Your task to perform on an android device: open app "DoorDash - Dasher" Image 0: 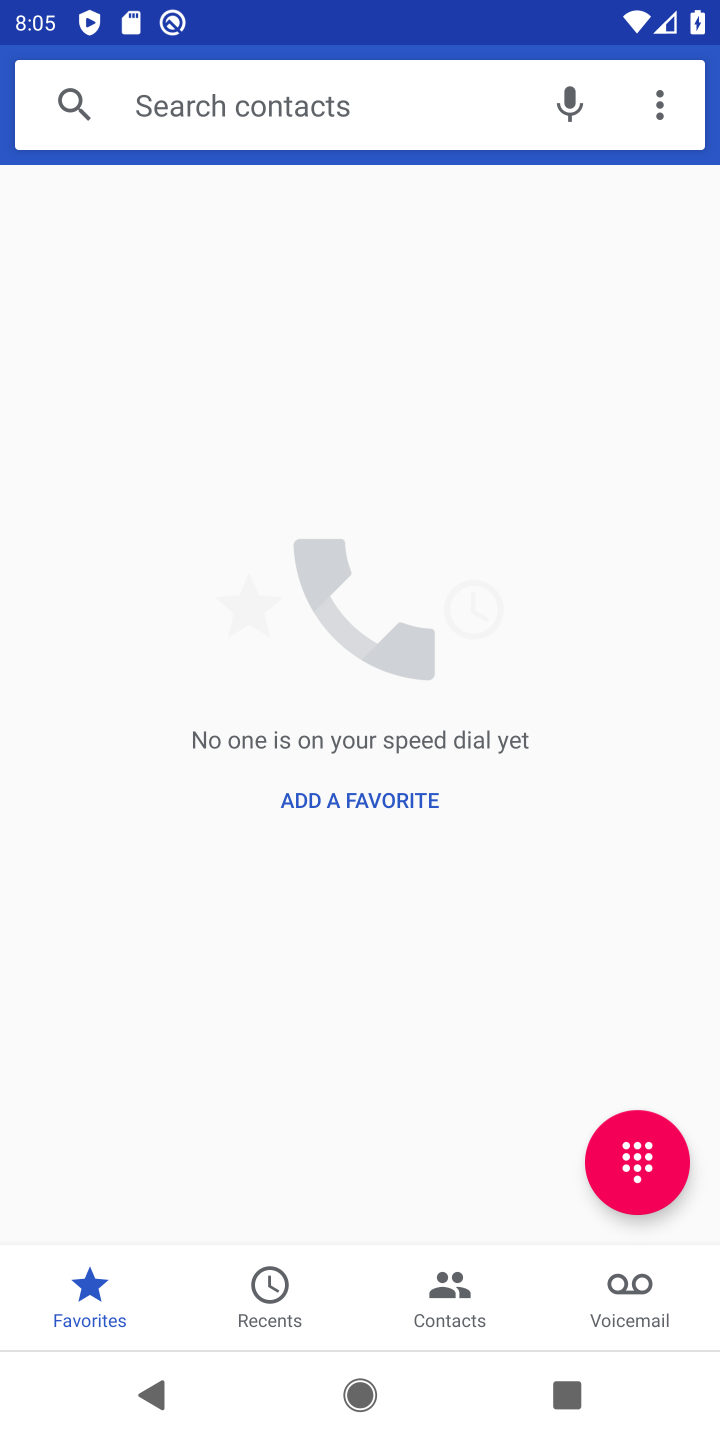
Step 0: press home button
Your task to perform on an android device: open app "DoorDash - Dasher" Image 1: 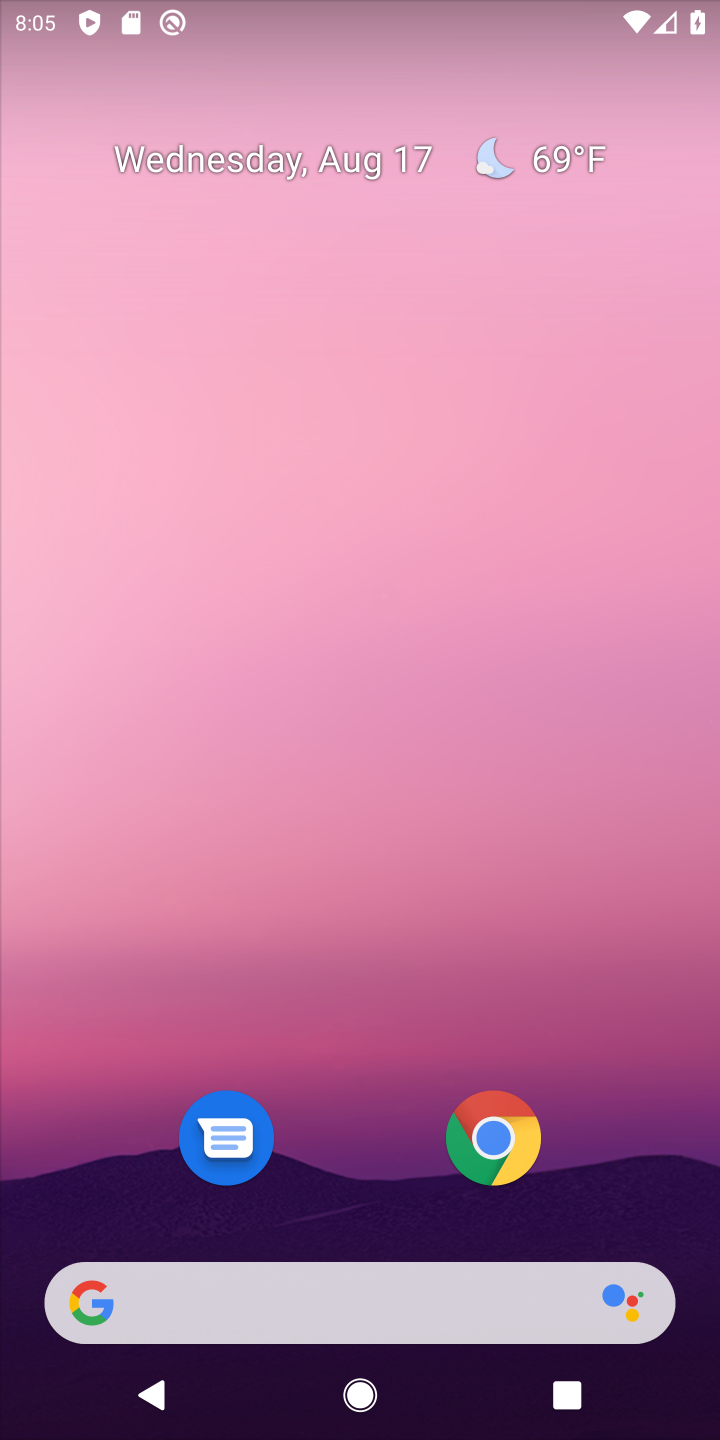
Step 1: drag from (312, 1211) to (238, 394)
Your task to perform on an android device: open app "DoorDash - Dasher" Image 2: 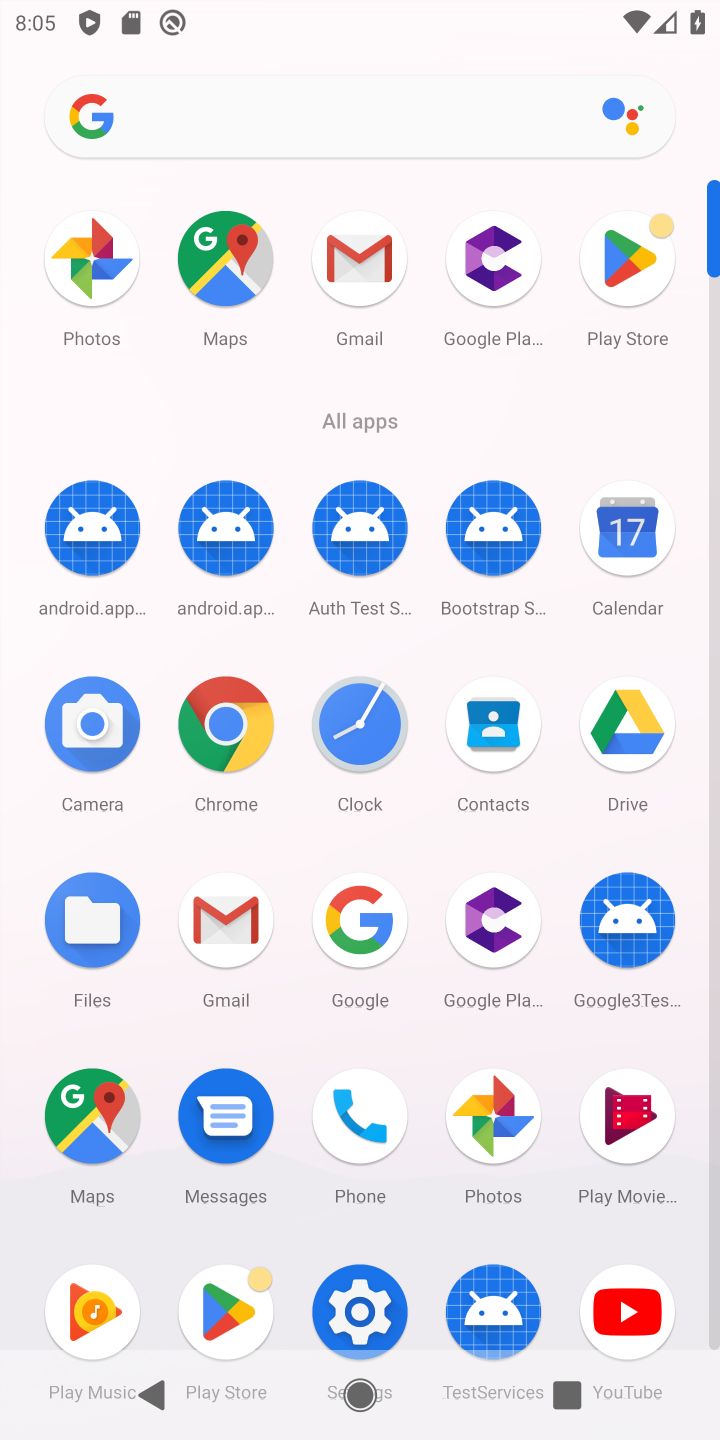
Step 2: click (209, 1305)
Your task to perform on an android device: open app "DoorDash - Dasher" Image 3: 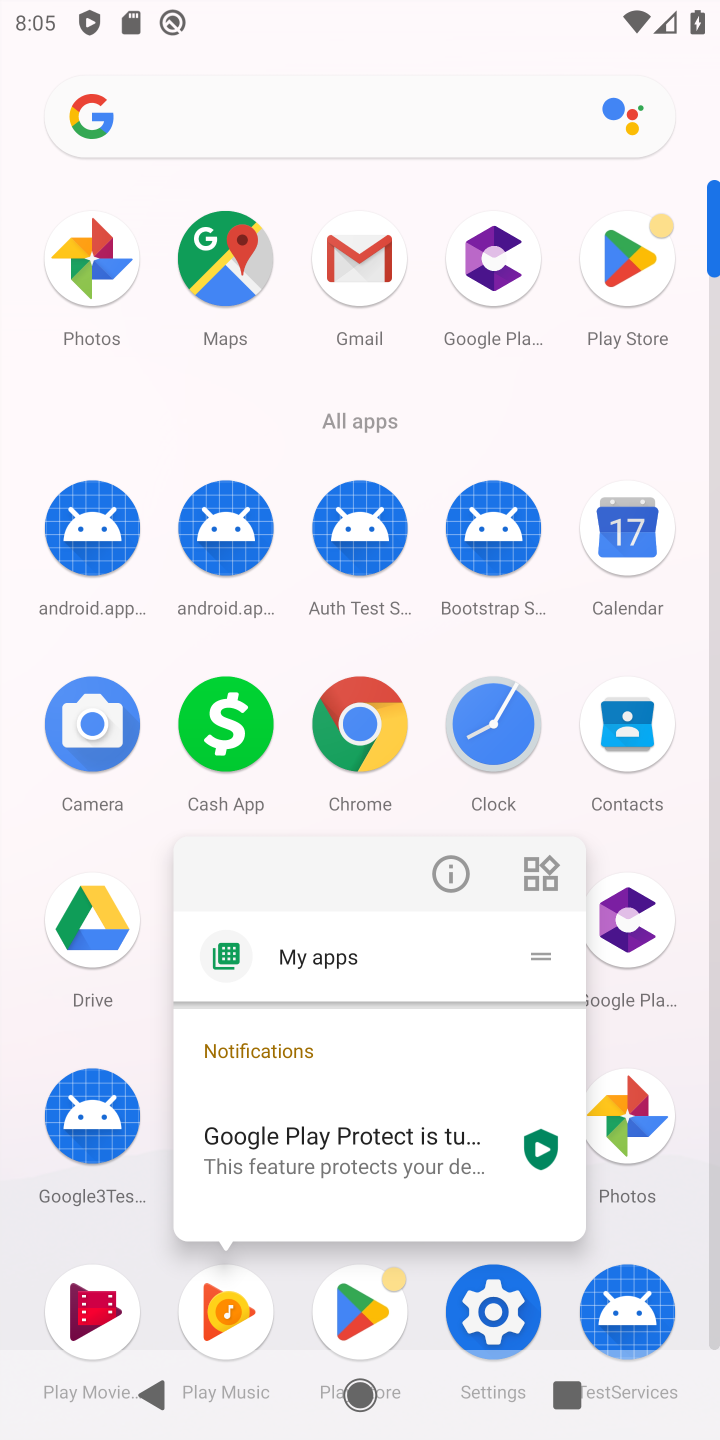
Step 3: click (351, 1295)
Your task to perform on an android device: open app "DoorDash - Dasher" Image 4: 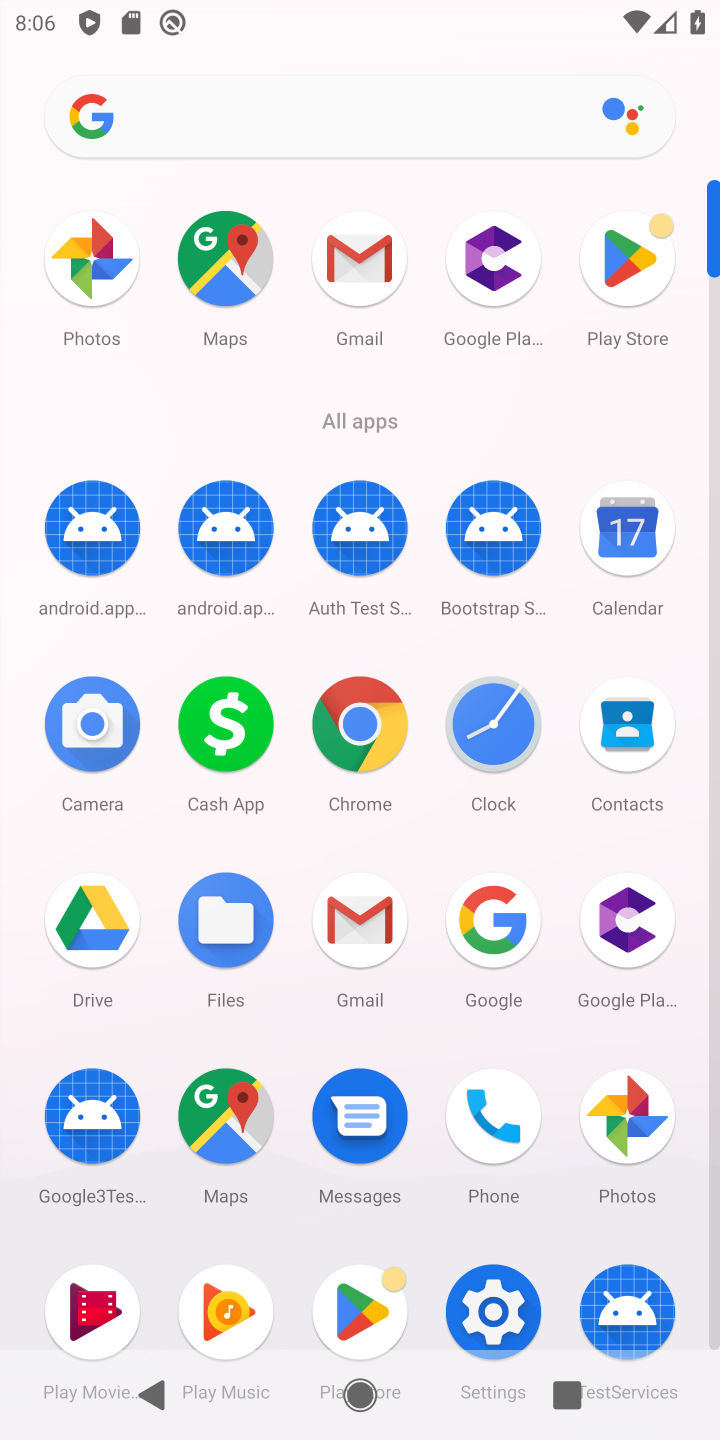
Step 4: click (615, 247)
Your task to perform on an android device: open app "DoorDash - Dasher" Image 5: 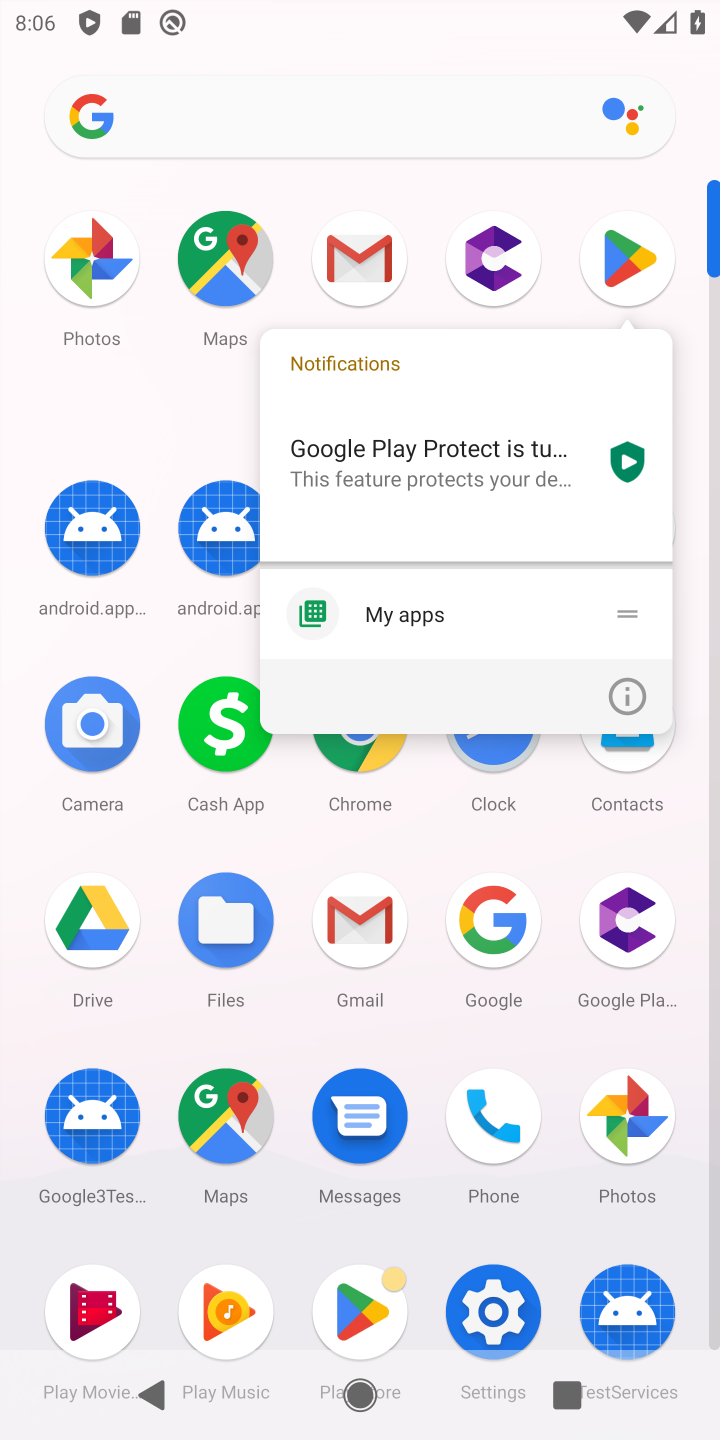
Step 5: click (615, 247)
Your task to perform on an android device: open app "DoorDash - Dasher" Image 6: 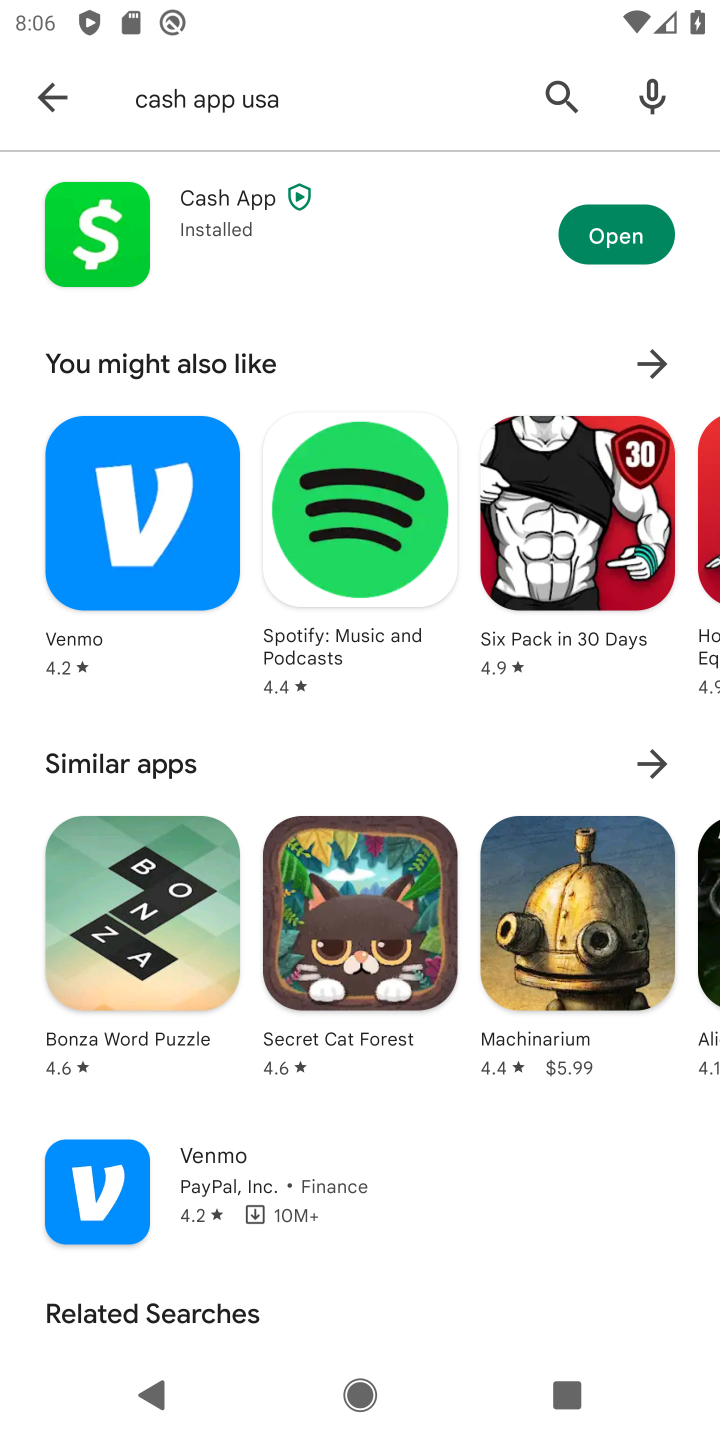
Step 6: click (28, 100)
Your task to perform on an android device: open app "DoorDash - Dasher" Image 7: 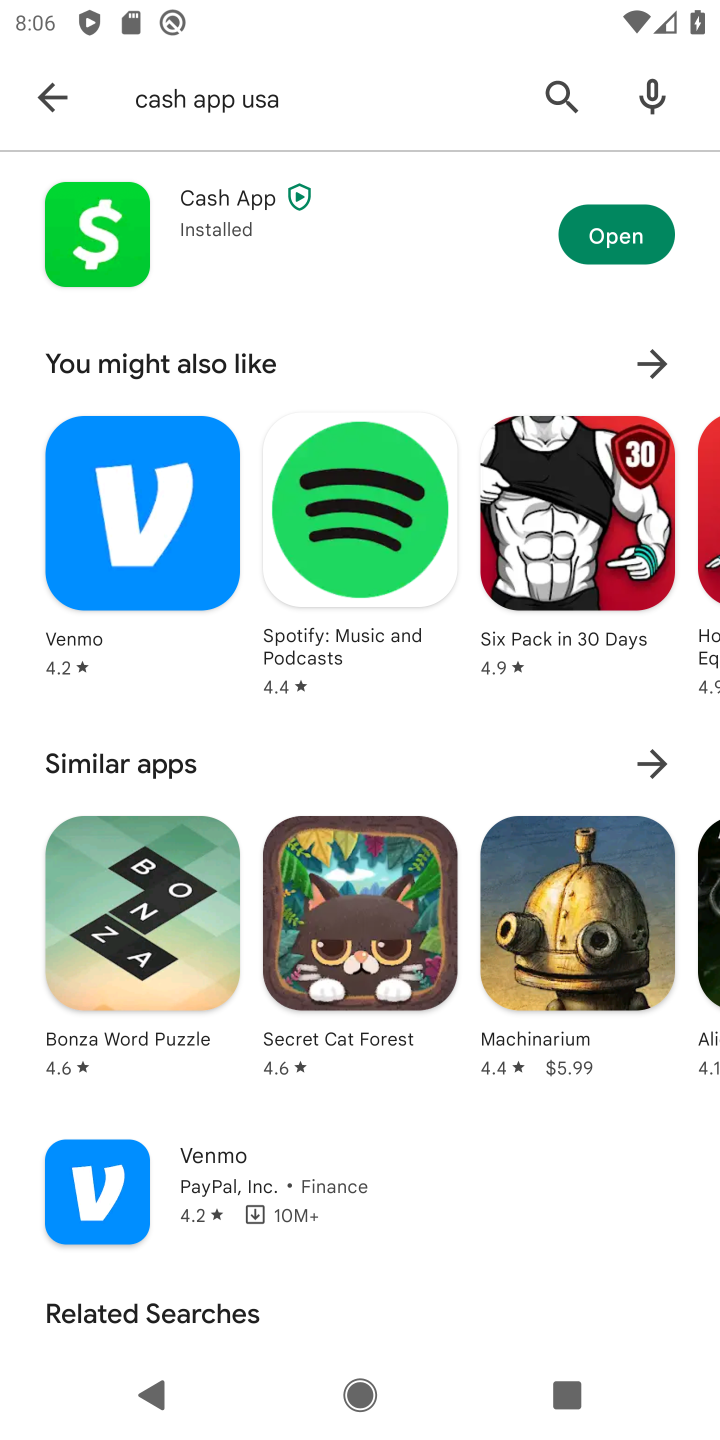
Step 7: click (46, 85)
Your task to perform on an android device: open app "DoorDash - Dasher" Image 8: 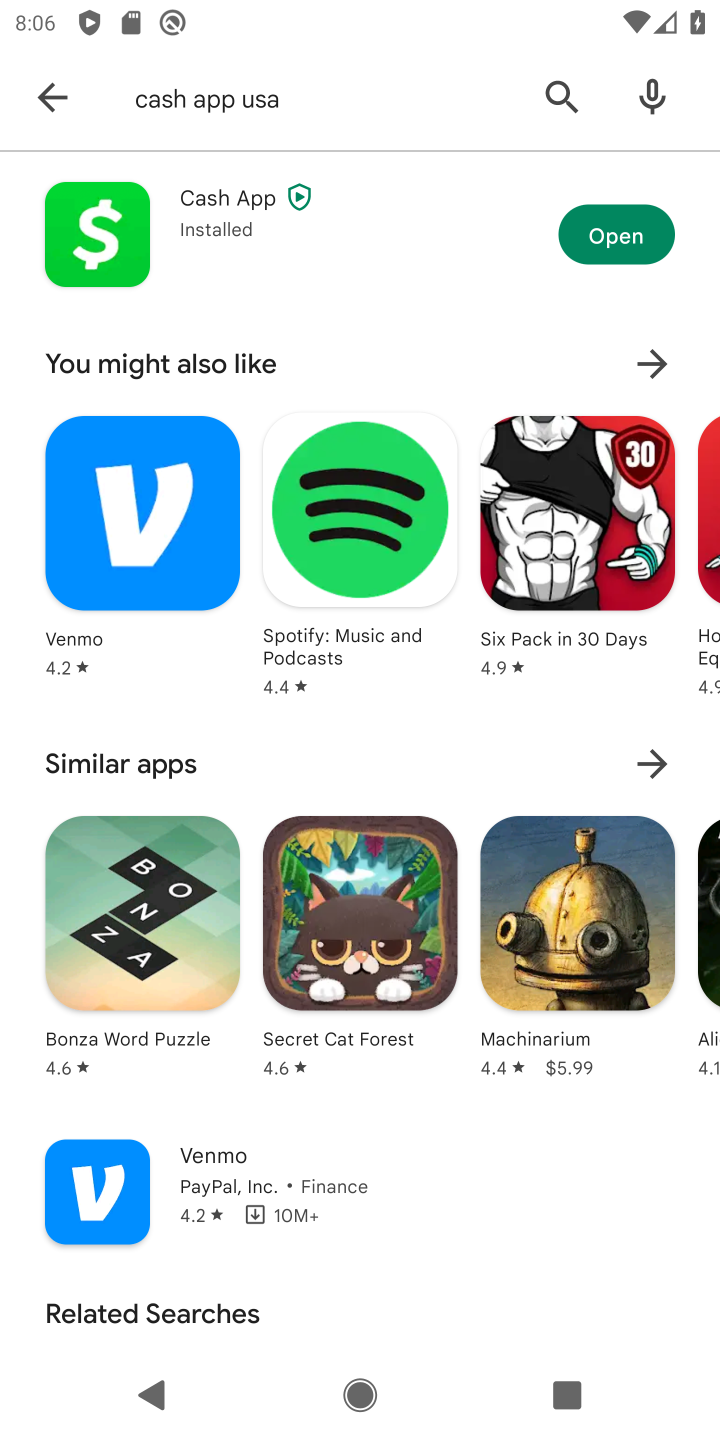
Step 8: click (51, 101)
Your task to perform on an android device: open app "DoorDash - Dasher" Image 9: 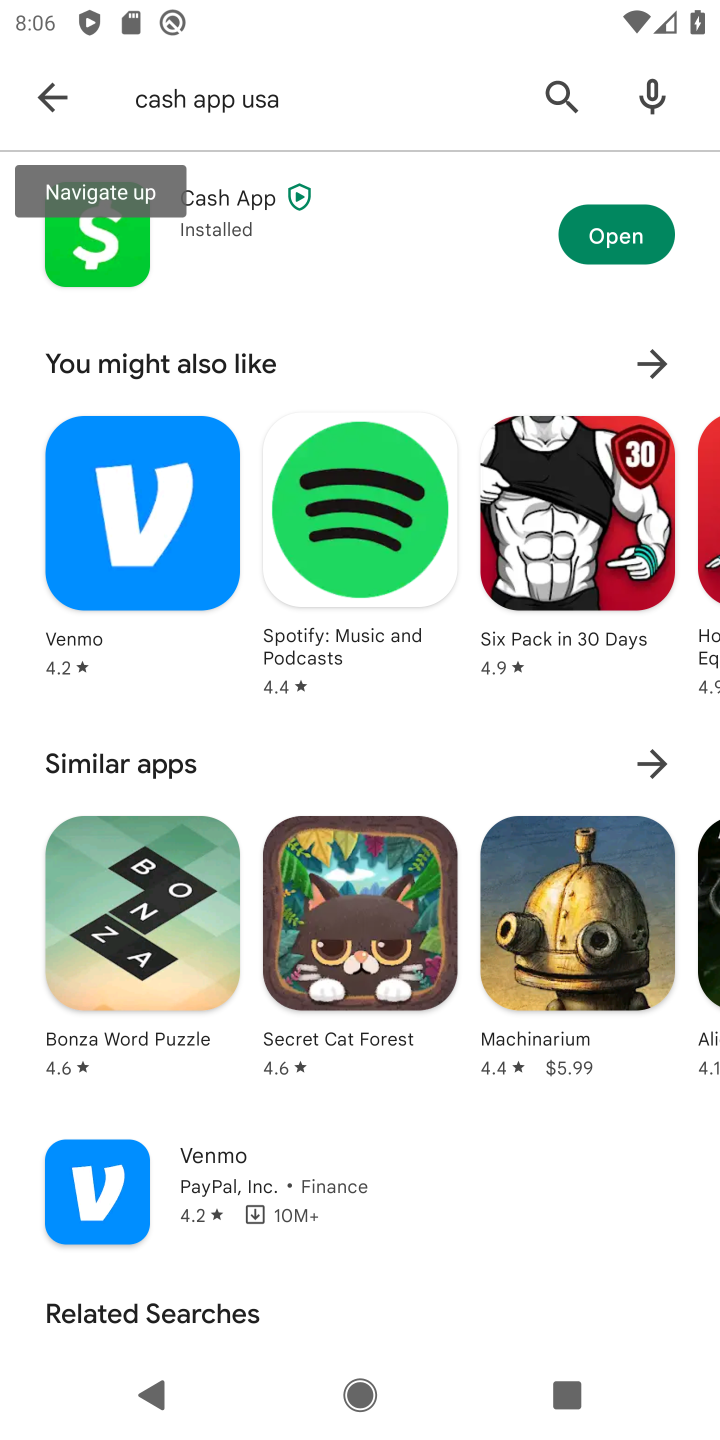
Step 9: click (51, 101)
Your task to perform on an android device: open app "DoorDash - Dasher" Image 10: 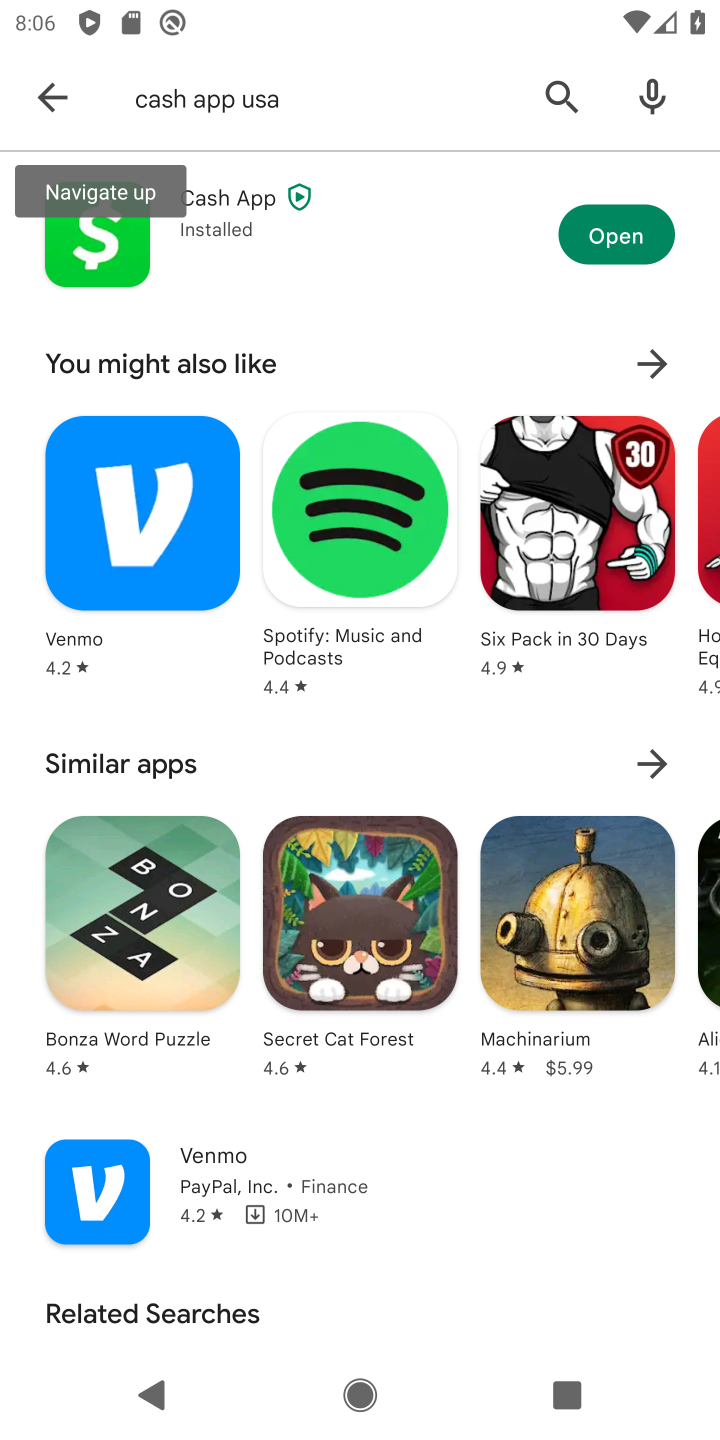
Step 10: click (542, 84)
Your task to perform on an android device: open app "DoorDash - Dasher" Image 11: 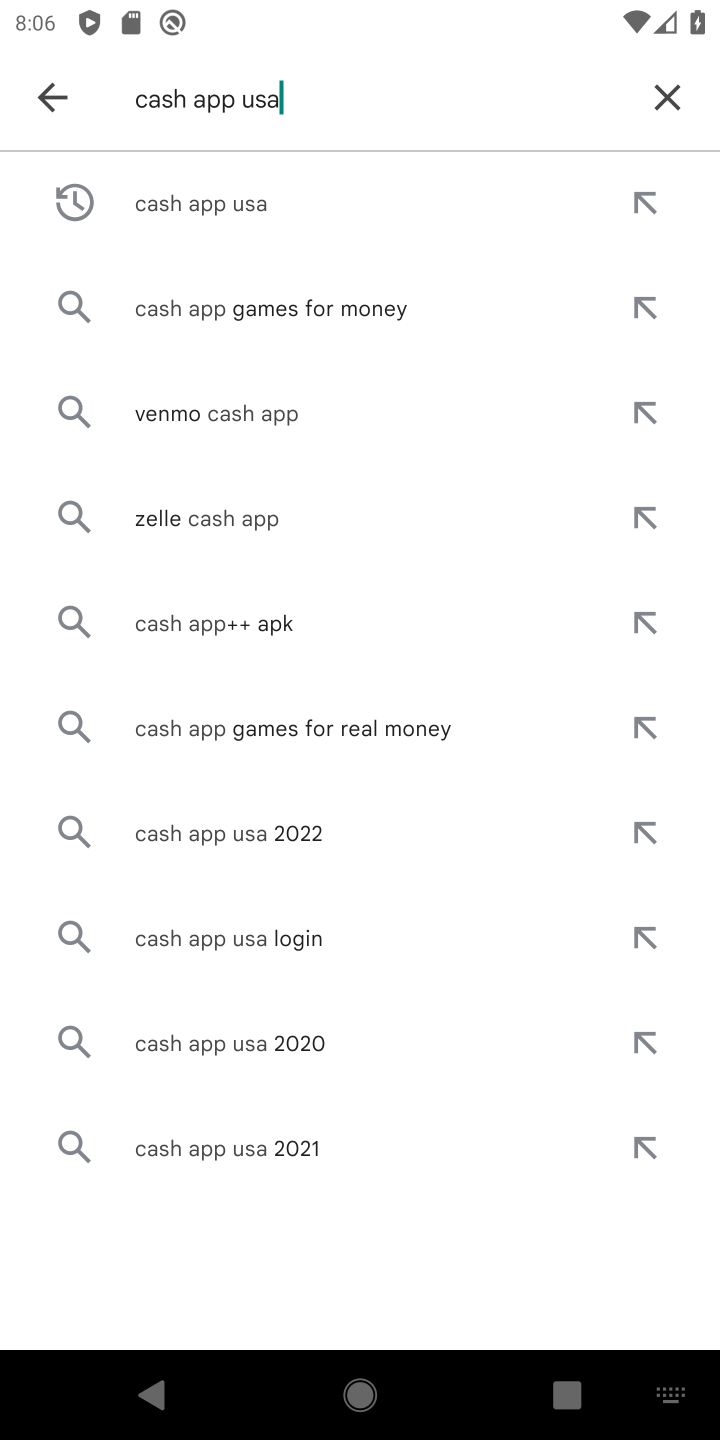
Step 11: click (682, 75)
Your task to perform on an android device: open app "DoorDash - Dasher" Image 12: 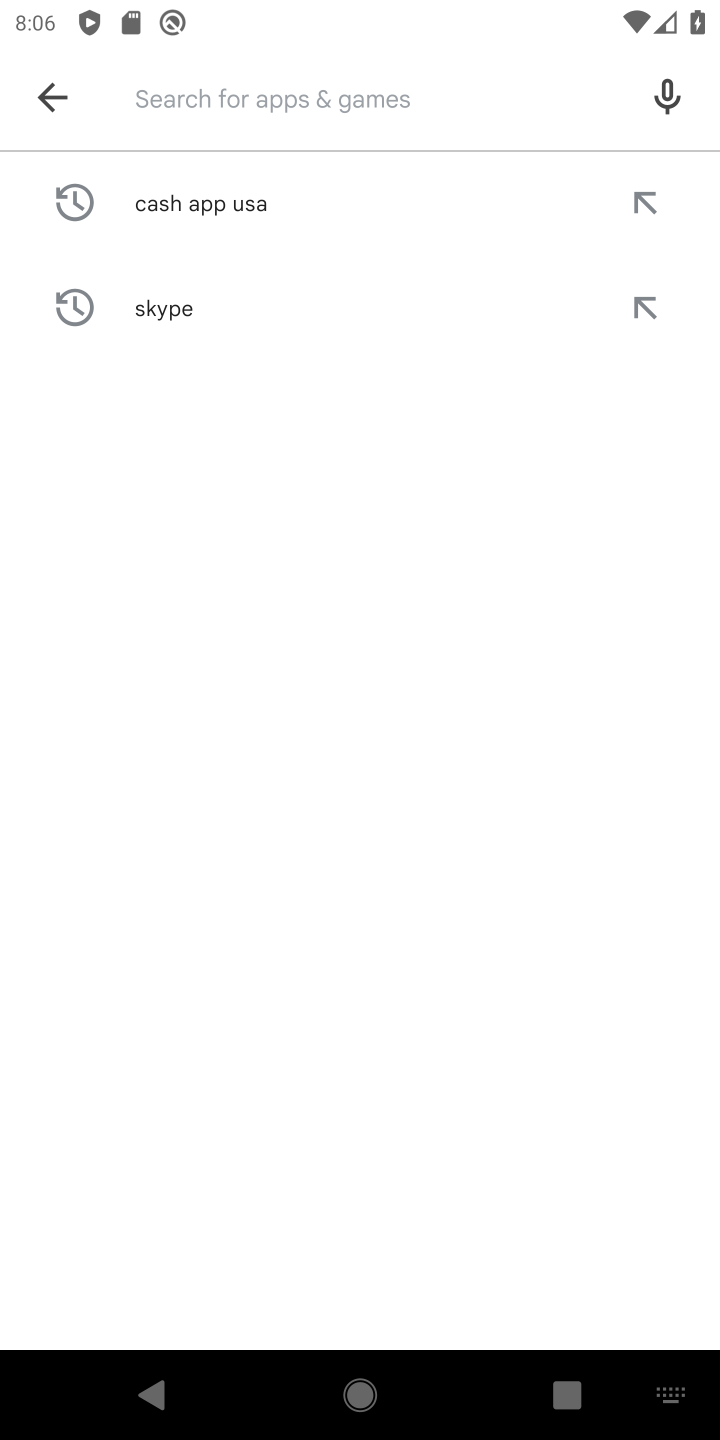
Step 12: click (359, 66)
Your task to perform on an android device: open app "DoorDash - Dasher" Image 13: 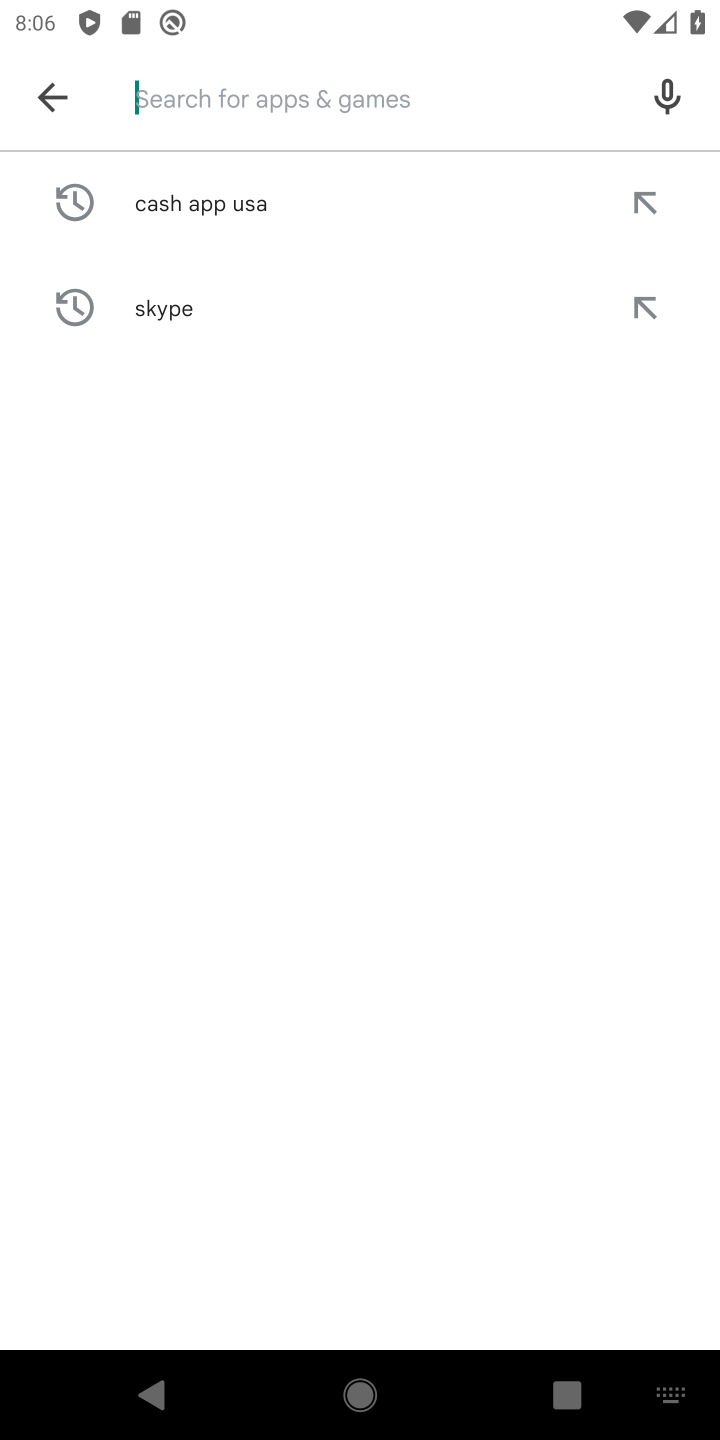
Step 13: type "DoorDash "
Your task to perform on an android device: open app "DoorDash - Dasher" Image 14: 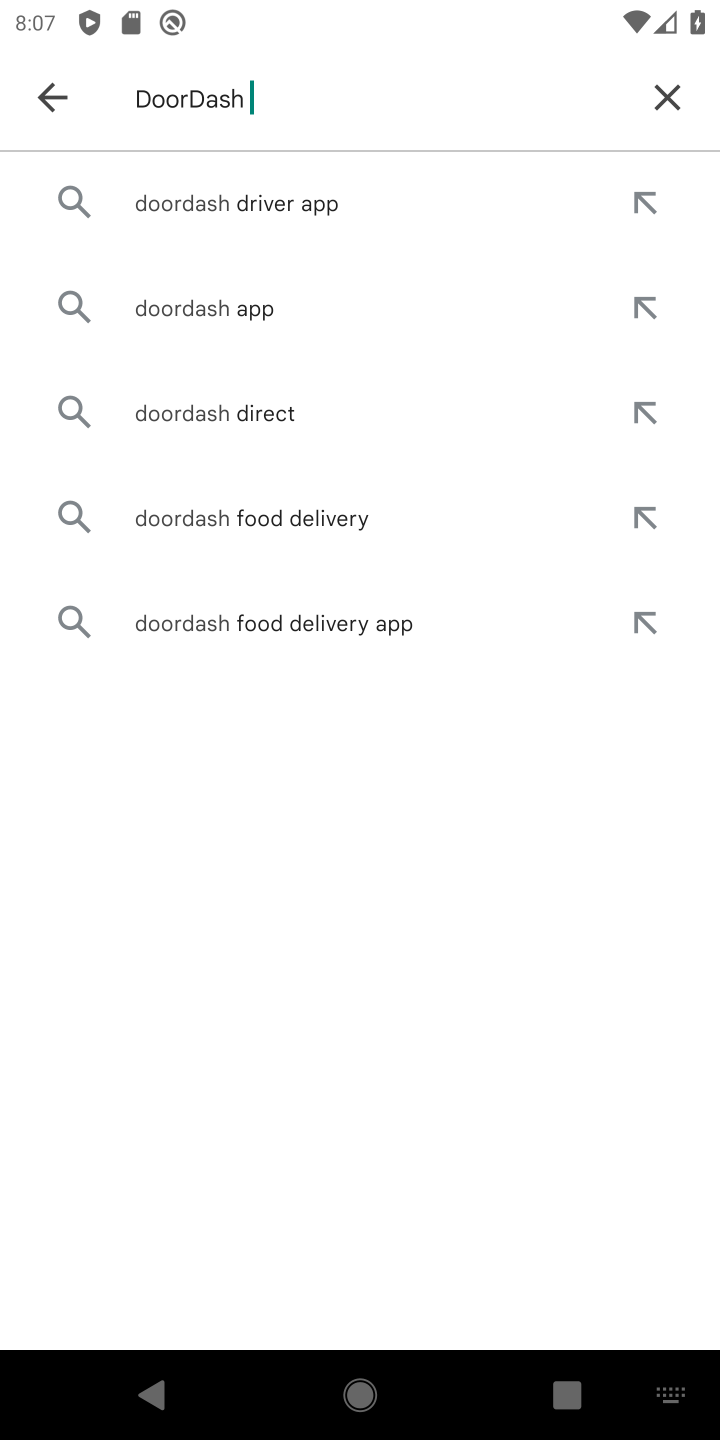
Step 14: click (206, 311)
Your task to perform on an android device: open app "DoorDash - Dasher" Image 15: 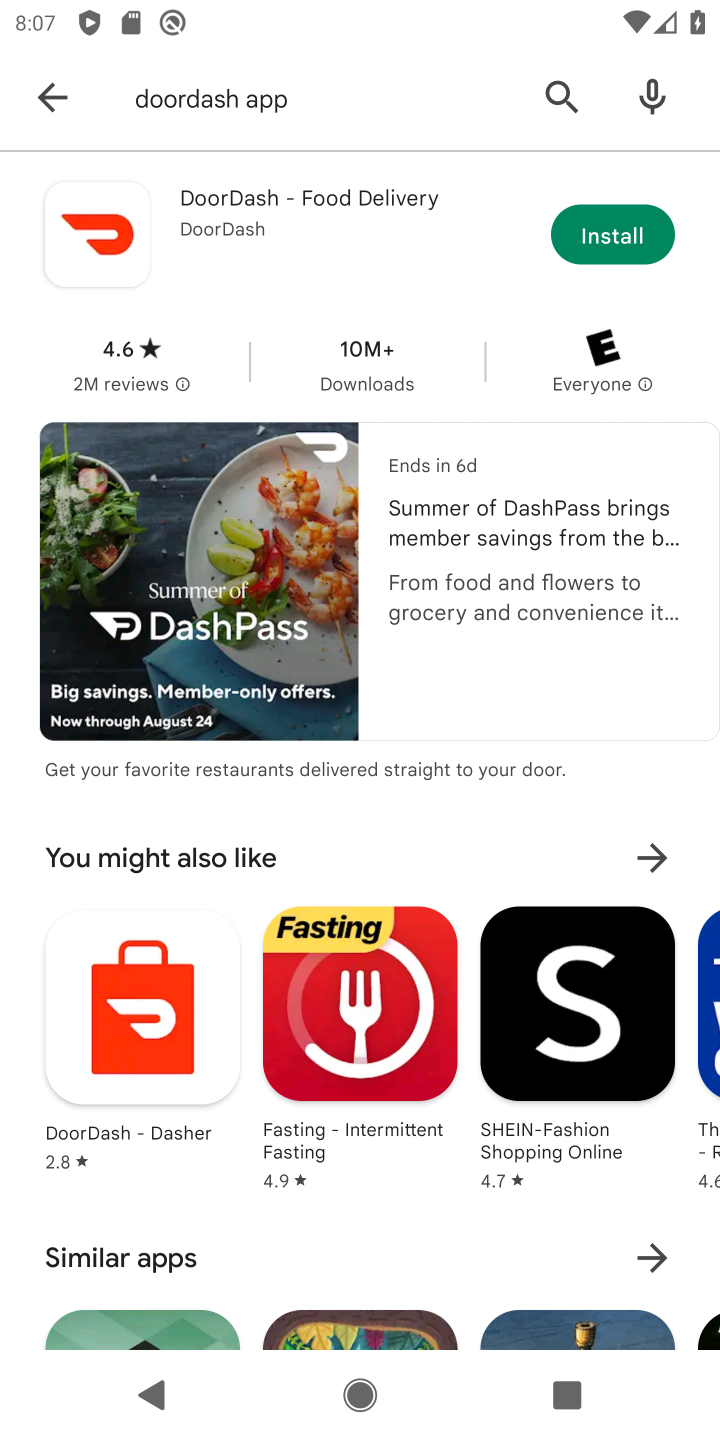
Step 15: click (624, 209)
Your task to perform on an android device: open app "DoorDash - Dasher" Image 16: 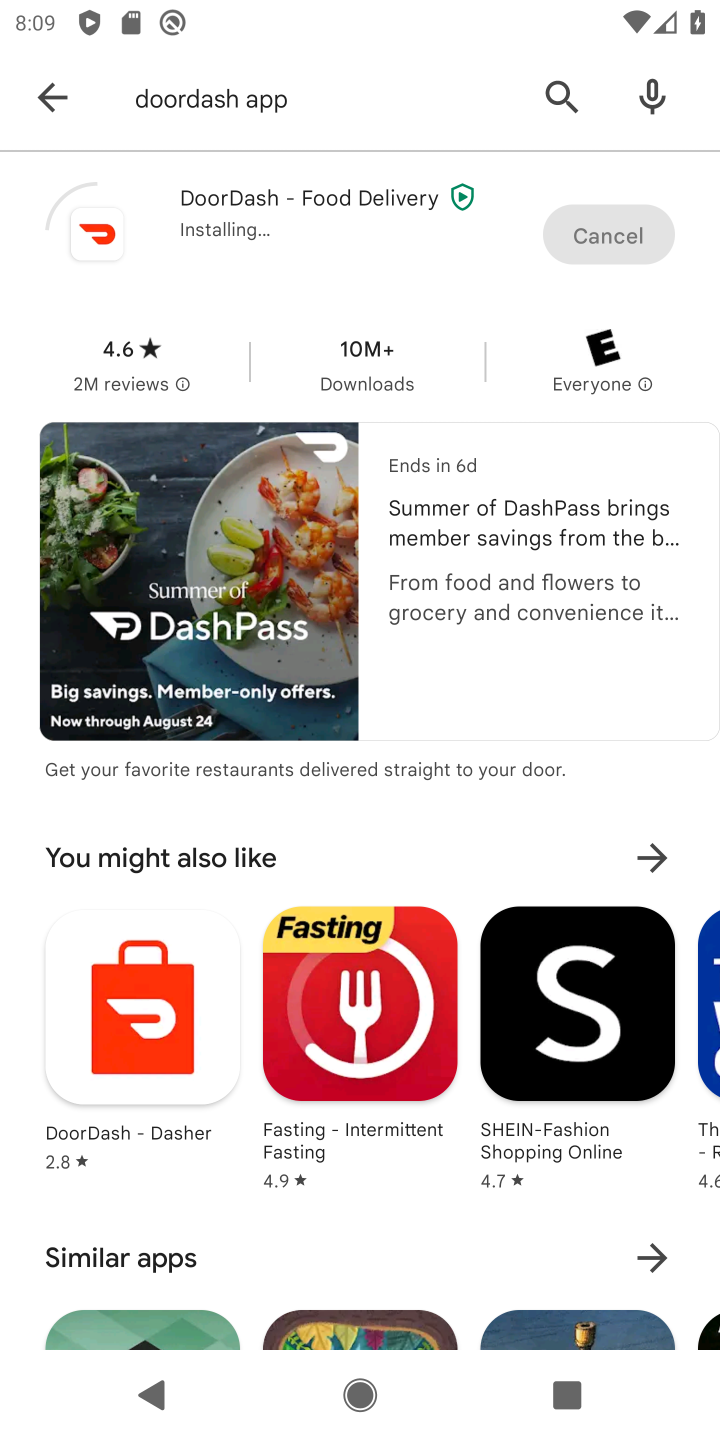
Step 16: task complete